Your task to perform on an android device: Open ESPN.com Image 0: 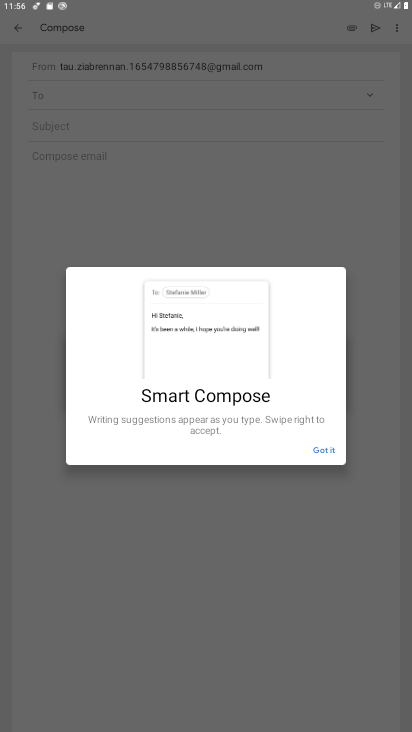
Step 0: press home button
Your task to perform on an android device: Open ESPN.com Image 1: 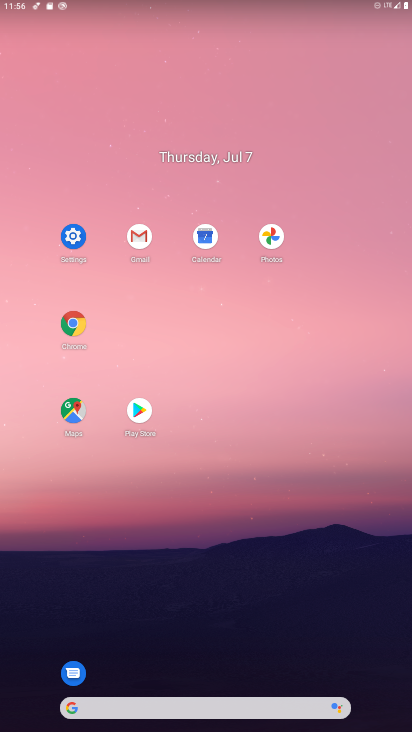
Step 1: click (73, 328)
Your task to perform on an android device: Open ESPN.com Image 2: 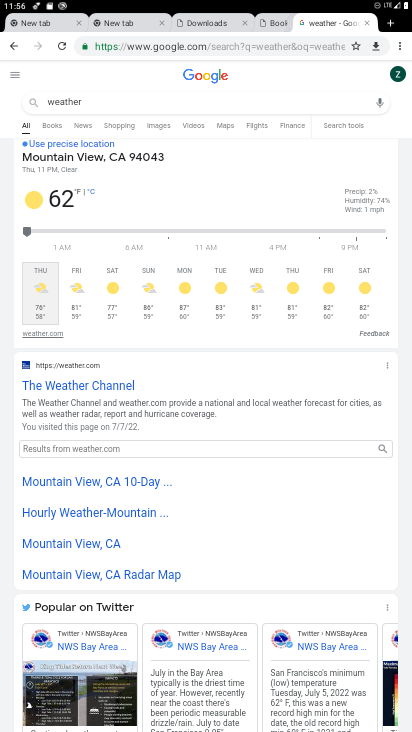
Step 2: click (397, 22)
Your task to perform on an android device: Open ESPN.com Image 3: 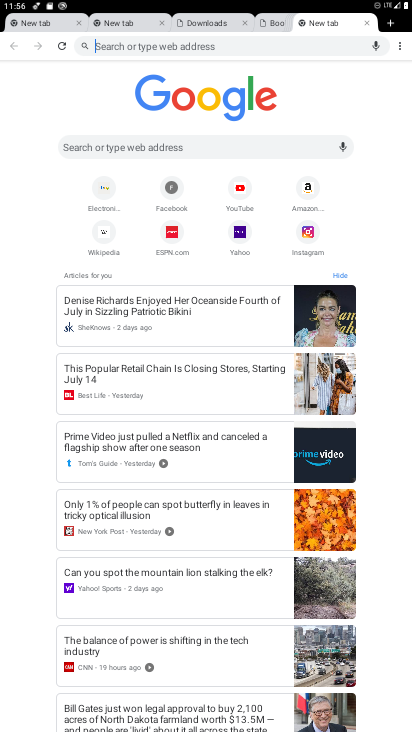
Step 3: click (177, 229)
Your task to perform on an android device: Open ESPN.com Image 4: 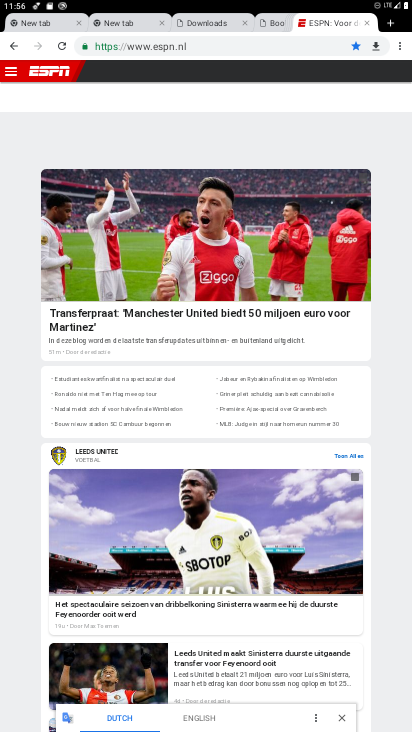
Step 4: task complete